Your task to perform on an android device: Go to ESPN.com Image 0: 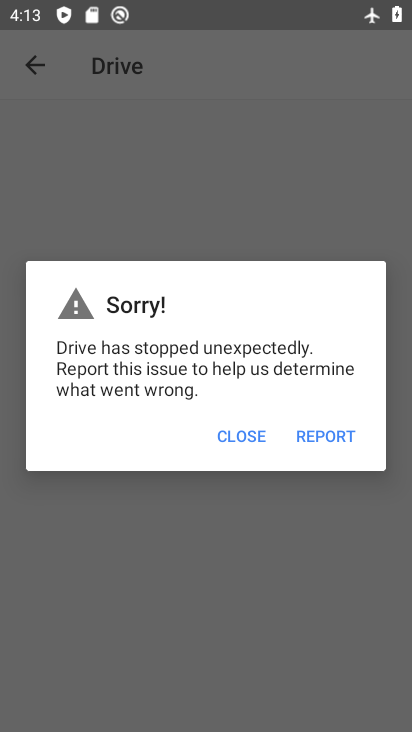
Step 0: press home button
Your task to perform on an android device: Go to ESPN.com Image 1: 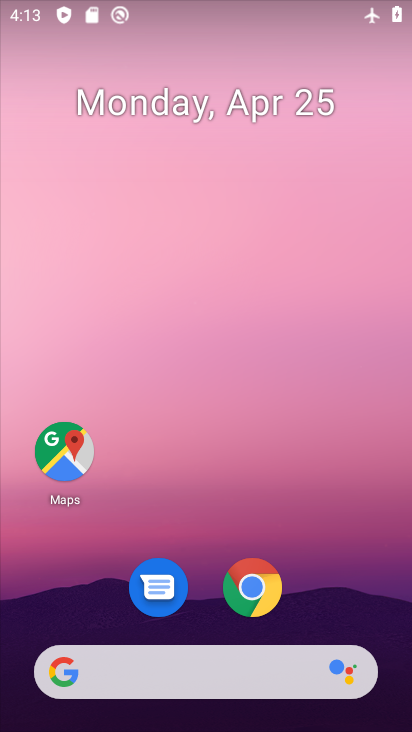
Step 1: click (240, 614)
Your task to perform on an android device: Go to ESPN.com Image 2: 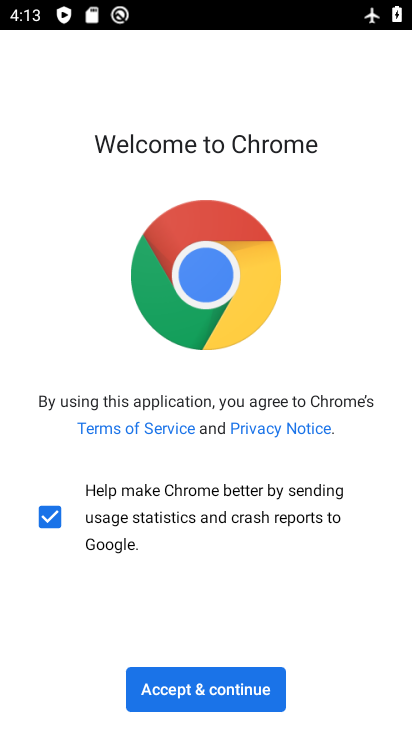
Step 2: click (239, 681)
Your task to perform on an android device: Go to ESPN.com Image 3: 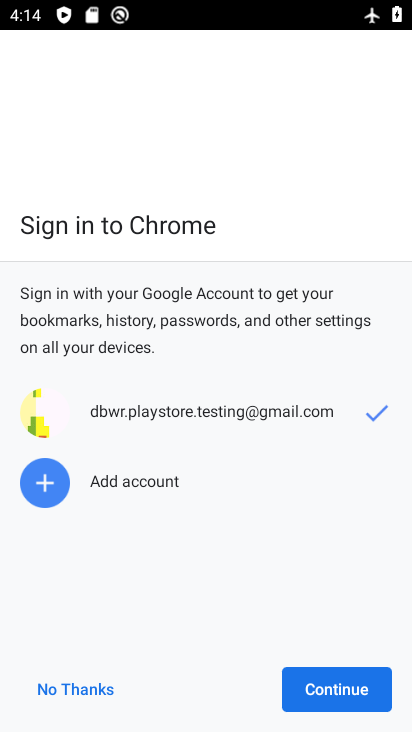
Step 3: click (321, 672)
Your task to perform on an android device: Go to ESPN.com Image 4: 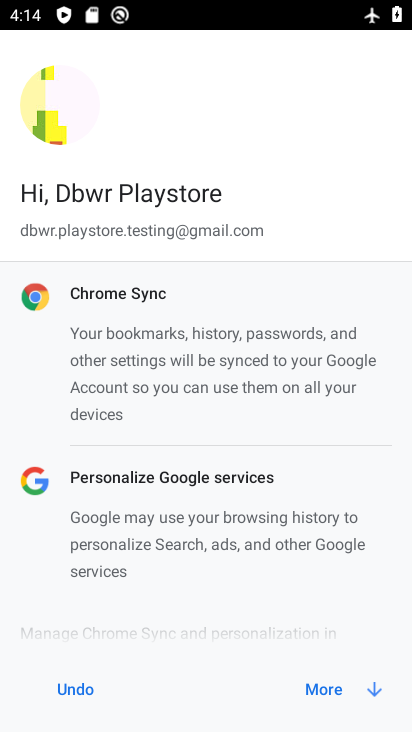
Step 4: click (321, 672)
Your task to perform on an android device: Go to ESPN.com Image 5: 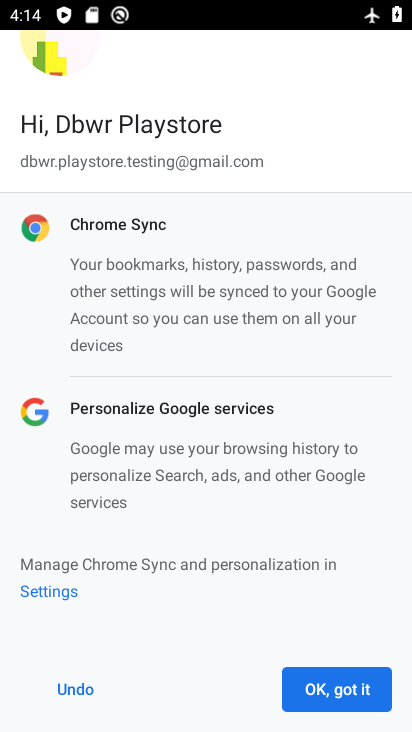
Step 5: click (321, 672)
Your task to perform on an android device: Go to ESPN.com Image 6: 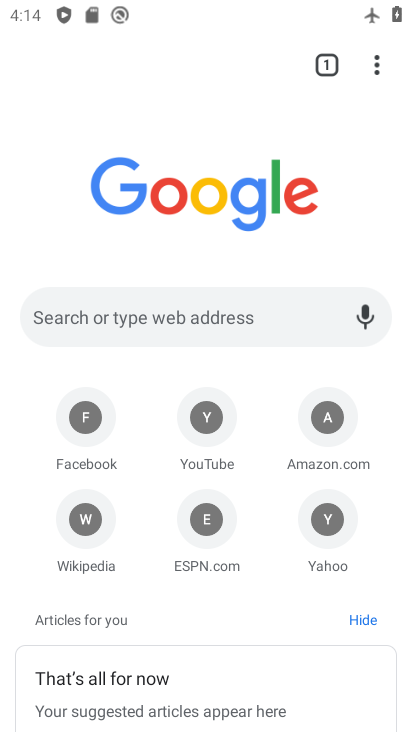
Step 6: click (216, 534)
Your task to perform on an android device: Go to ESPN.com Image 7: 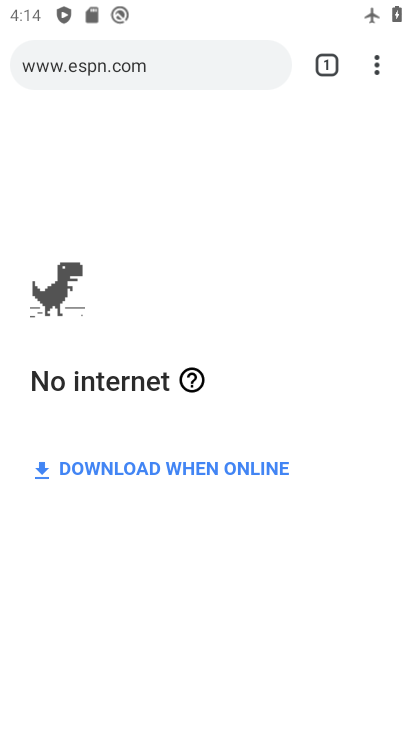
Step 7: task complete